Your task to perform on an android device: change the clock display to digital Image 0: 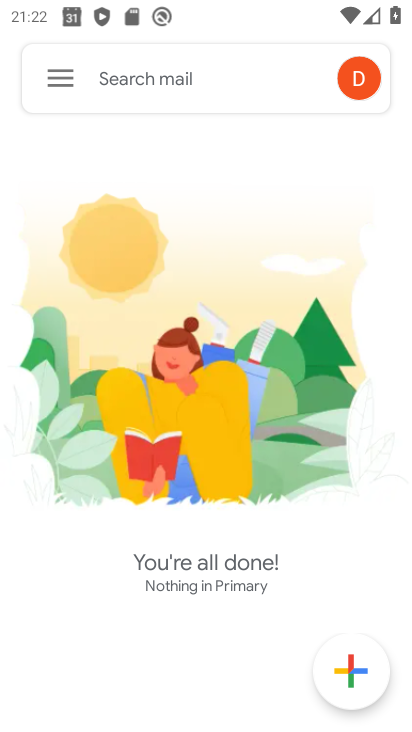
Step 0: press home button
Your task to perform on an android device: change the clock display to digital Image 1: 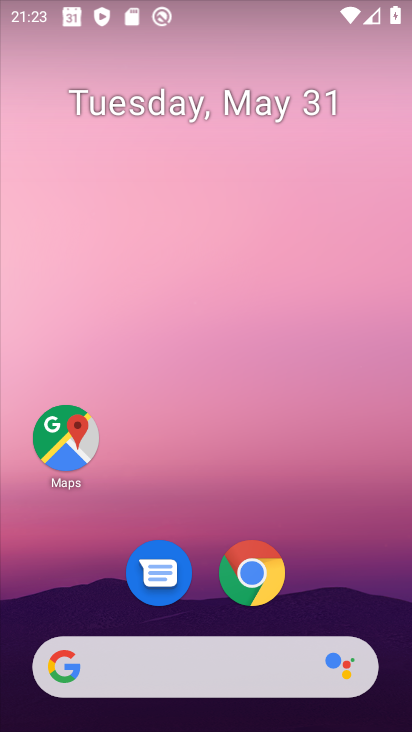
Step 1: drag from (330, 572) to (288, 139)
Your task to perform on an android device: change the clock display to digital Image 2: 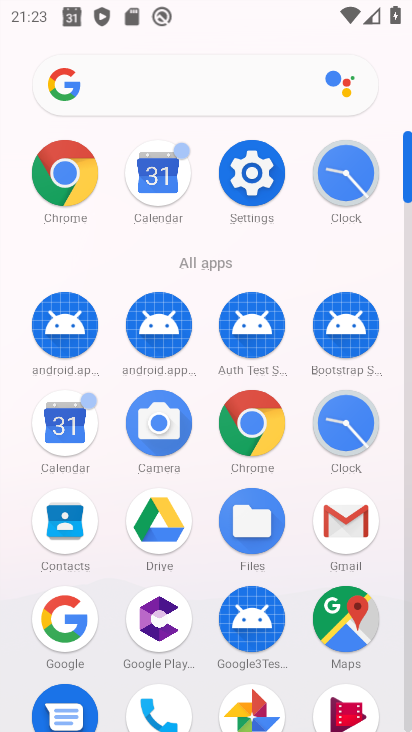
Step 2: click (350, 424)
Your task to perform on an android device: change the clock display to digital Image 3: 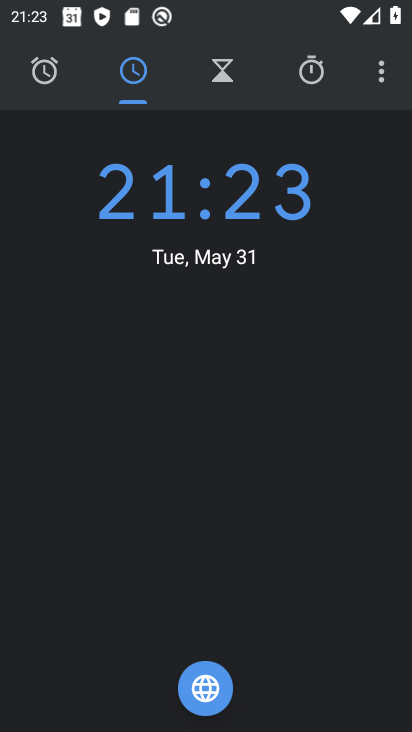
Step 3: click (379, 81)
Your task to perform on an android device: change the clock display to digital Image 4: 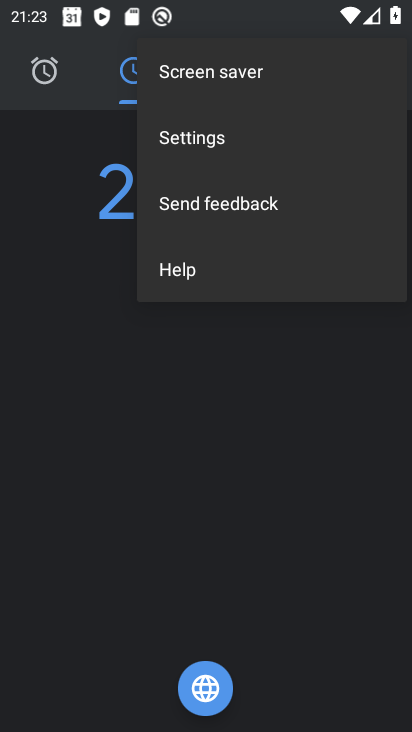
Step 4: click (237, 144)
Your task to perform on an android device: change the clock display to digital Image 5: 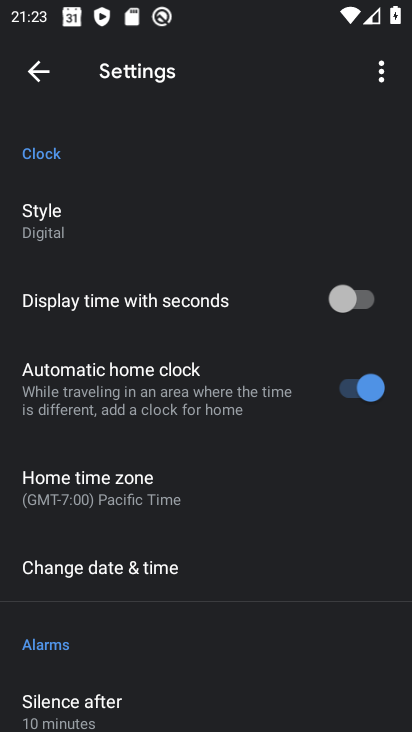
Step 5: task complete